Your task to perform on an android device: turn off location history Image 0: 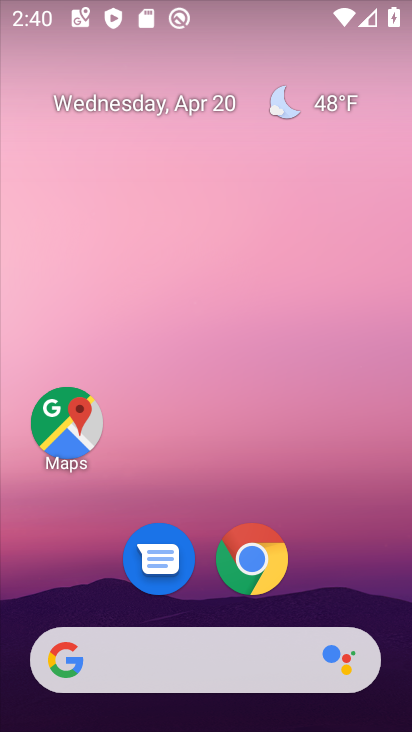
Step 0: drag from (260, 704) to (273, 245)
Your task to perform on an android device: turn off location history Image 1: 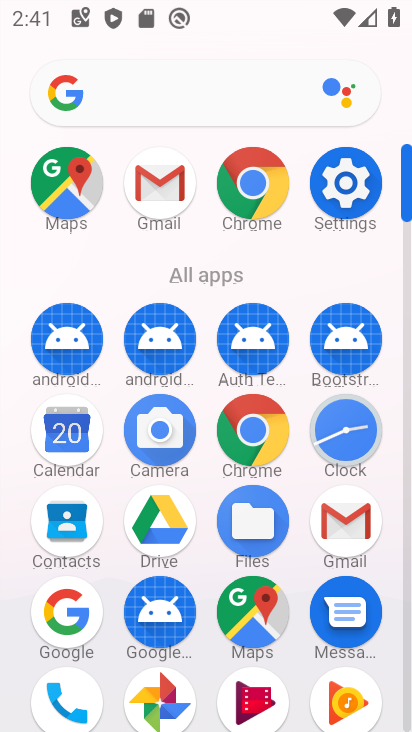
Step 1: click (343, 206)
Your task to perform on an android device: turn off location history Image 2: 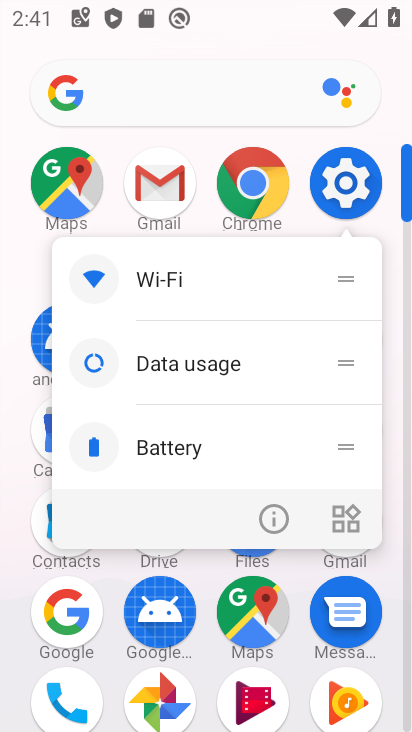
Step 2: click (326, 219)
Your task to perform on an android device: turn off location history Image 3: 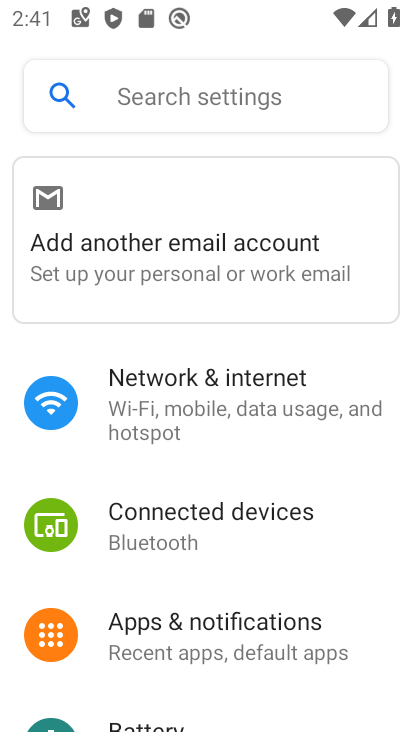
Step 3: click (150, 97)
Your task to perform on an android device: turn off location history Image 4: 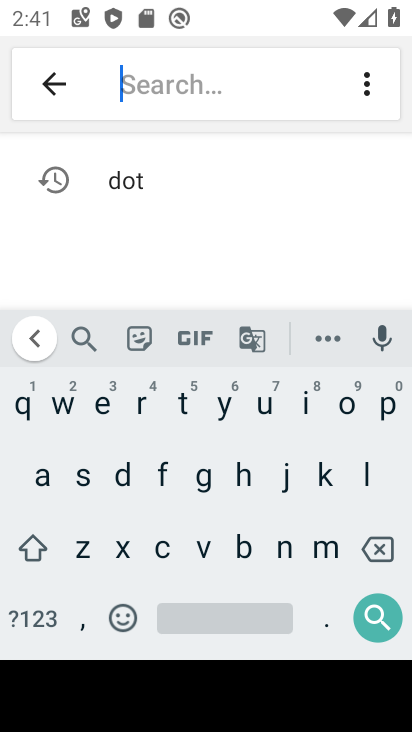
Step 4: click (367, 483)
Your task to perform on an android device: turn off location history Image 5: 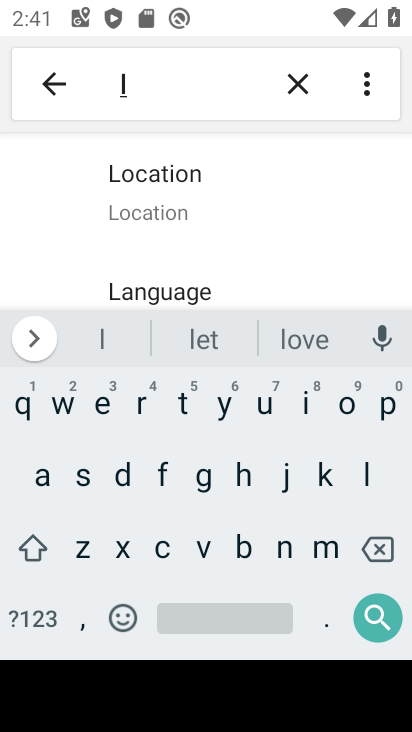
Step 5: click (182, 217)
Your task to perform on an android device: turn off location history Image 6: 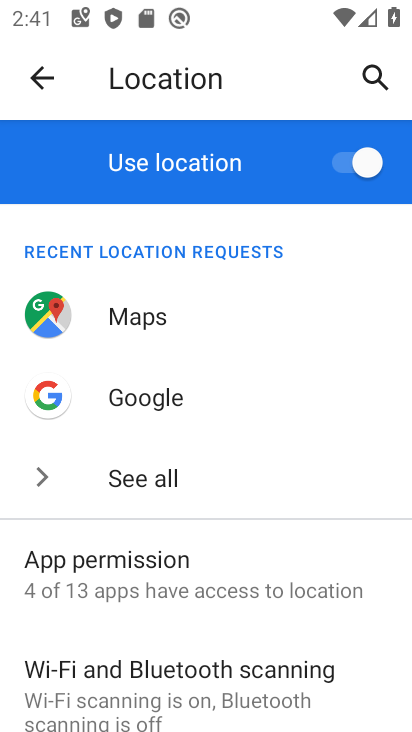
Step 6: drag from (217, 584) to (313, 208)
Your task to perform on an android device: turn off location history Image 7: 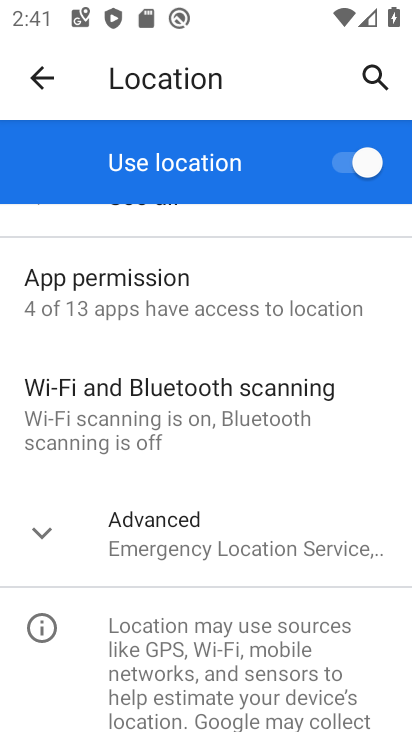
Step 7: click (120, 533)
Your task to perform on an android device: turn off location history Image 8: 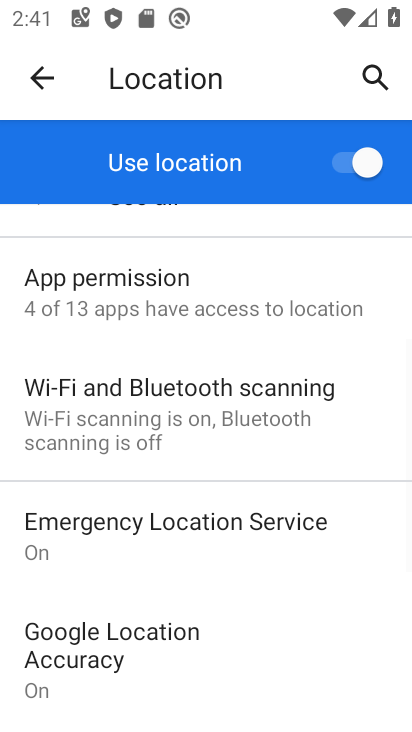
Step 8: drag from (174, 568) to (257, 307)
Your task to perform on an android device: turn off location history Image 9: 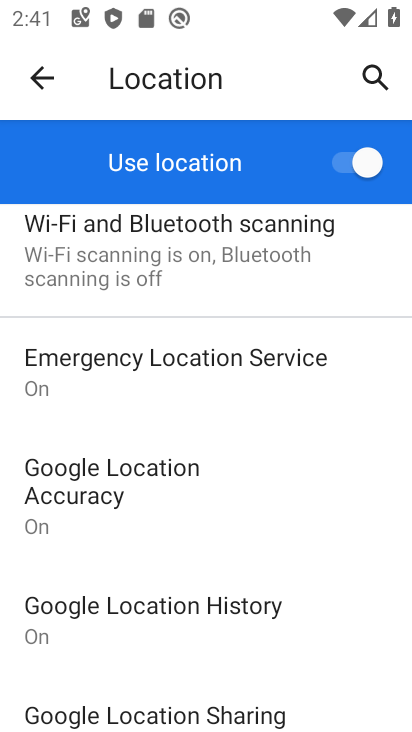
Step 9: click (137, 620)
Your task to perform on an android device: turn off location history Image 10: 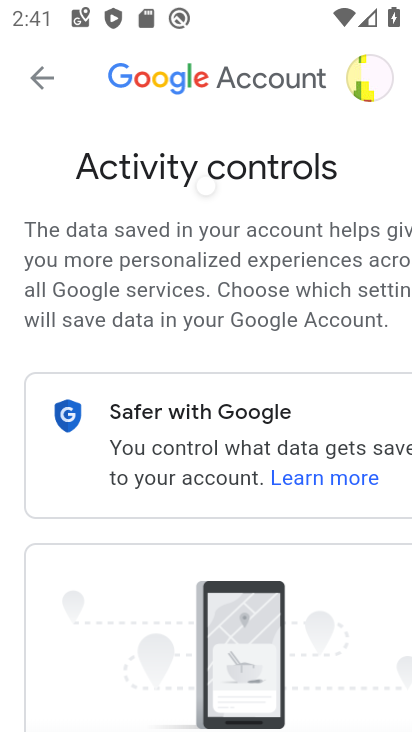
Step 10: task complete